Your task to perform on an android device: empty trash in the gmail app Image 0: 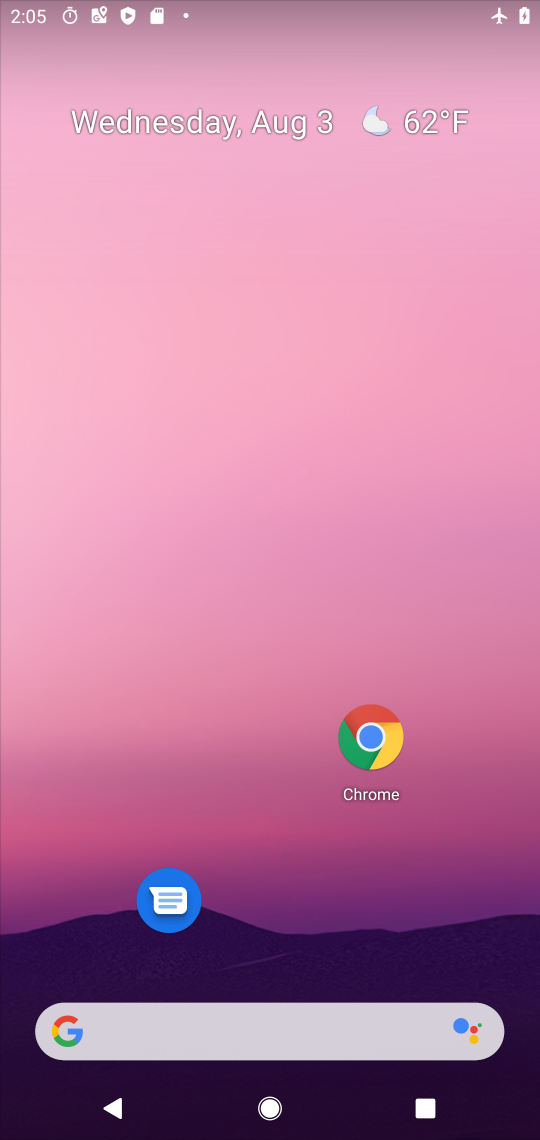
Step 0: drag from (244, 889) to (239, 139)
Your task to perform on an android device: empty trash in the gmail app Image 1: 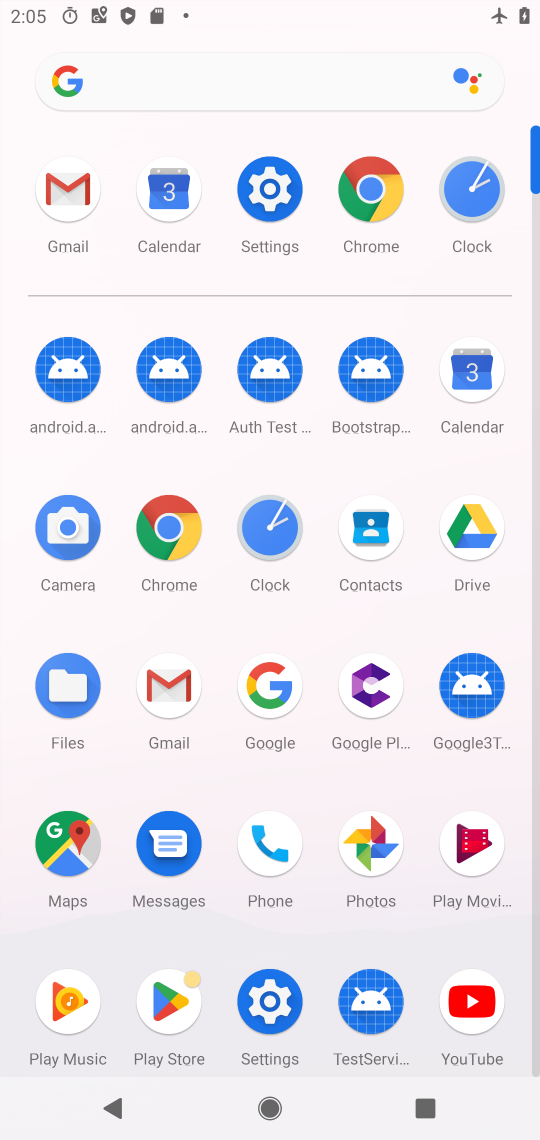
Step 1: click (71, 192)
Your task to perform on an android device: empty trash in the gmail app Image 2: 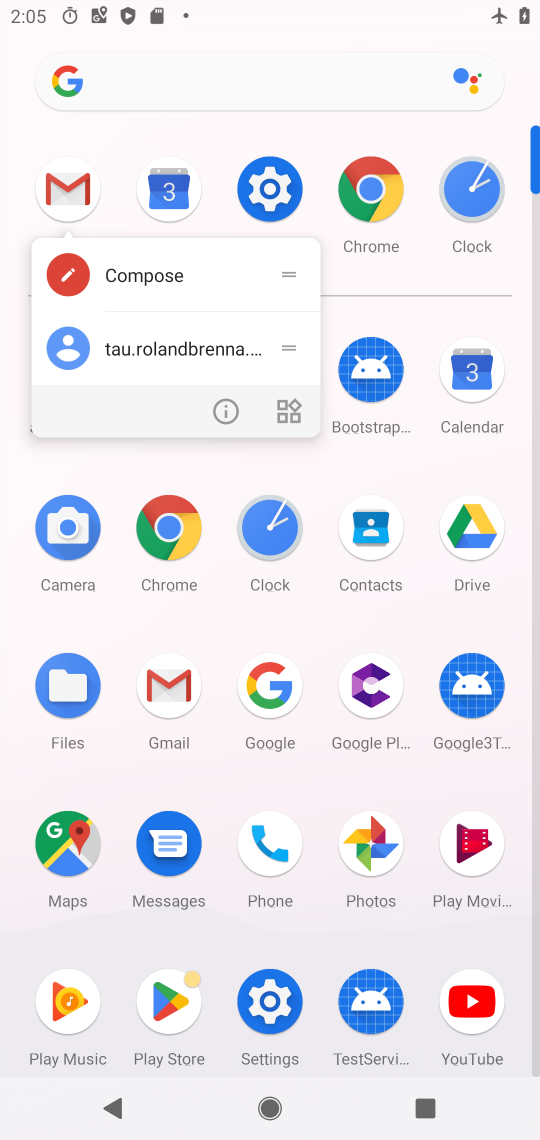
Step 2: click (71, 185)
Your task to perform on an android device: empty trash in the gmail app Image 3: 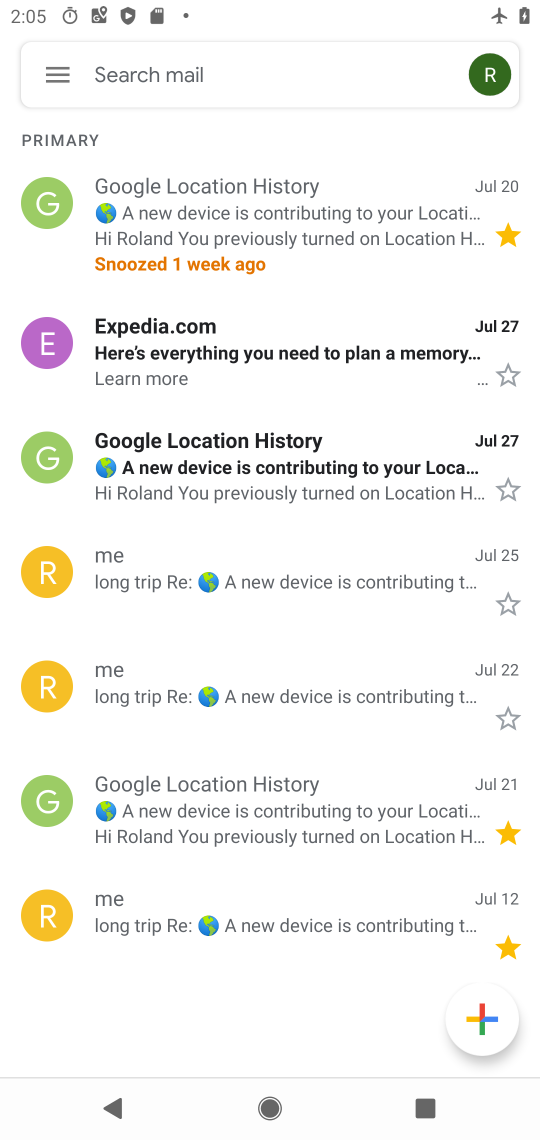
Step 3: click (64, 71)
Your task to perform on an android device: empty trash in the gmail app Image 4: 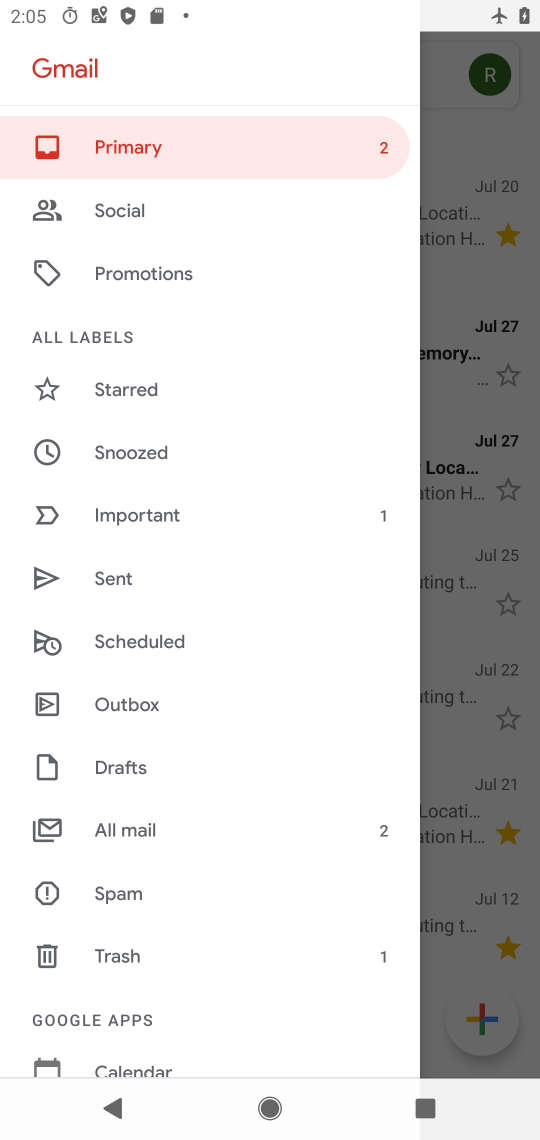
Step 4: click (126, 954)
Your task to perform on an android device: empty trash in the gmail app Image 5: 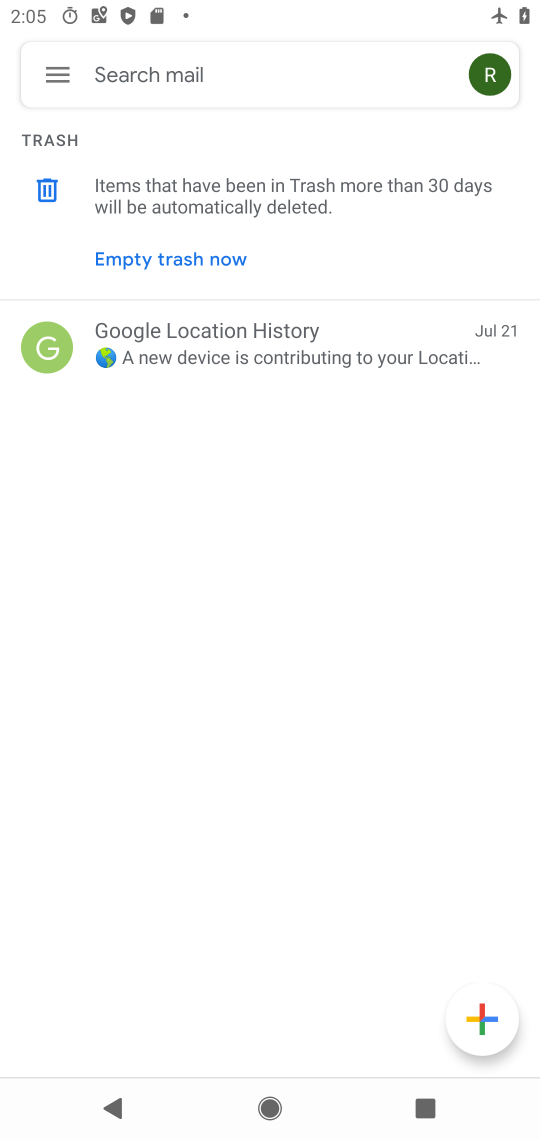
Step 5: click (166, 257)
Your task to perform on an android device: empty trash in the gmail app Image 6: 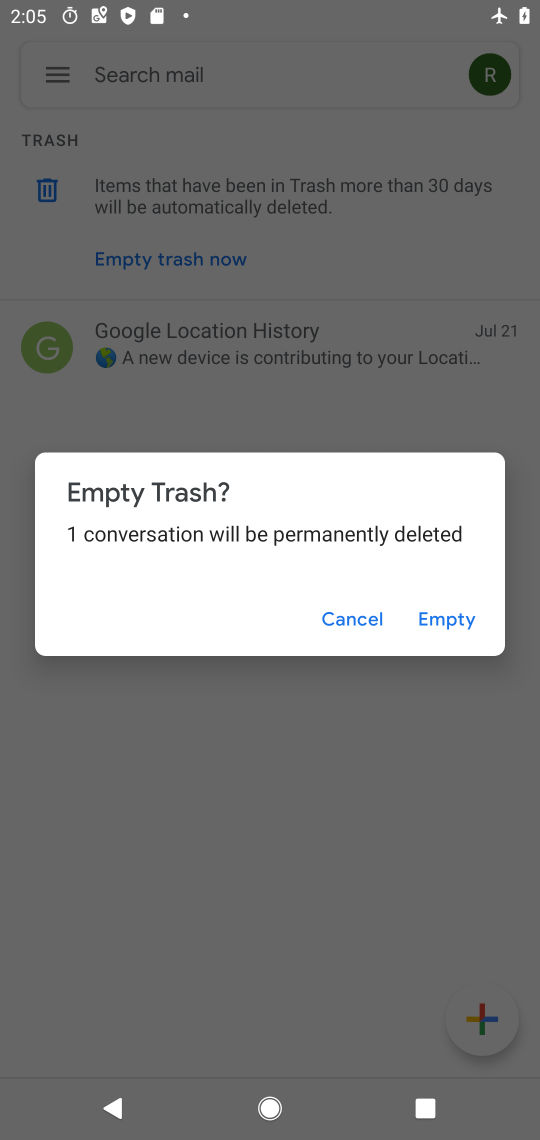
Step 6: click (462, 622)
Your task to perform on an android device: empty trash in the gmail app Image 7: 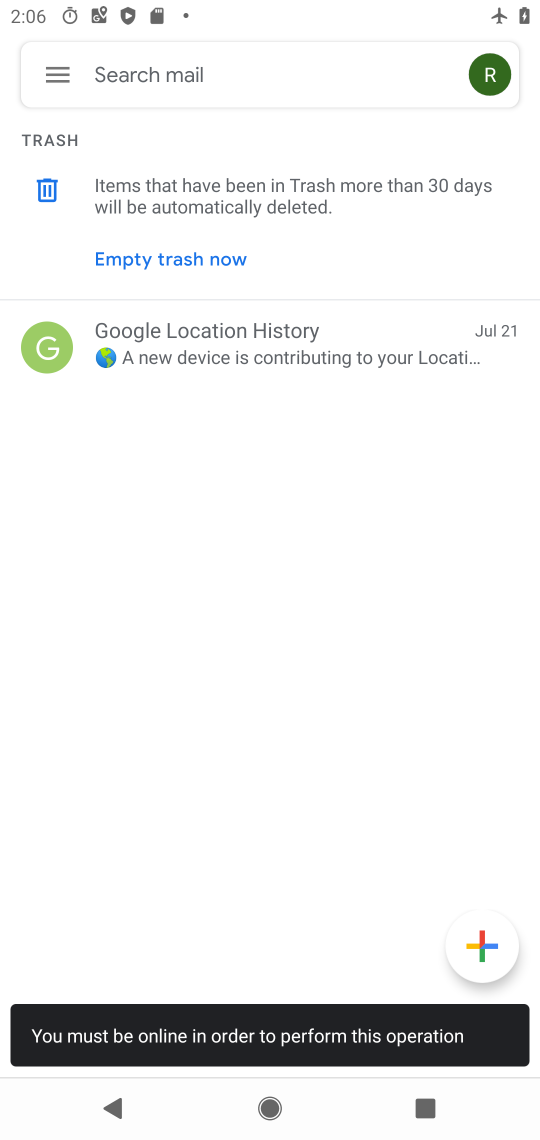
Step 7: click (219, 255)
Your task to perform on an android device: empty trash in the gmail app Image 8: 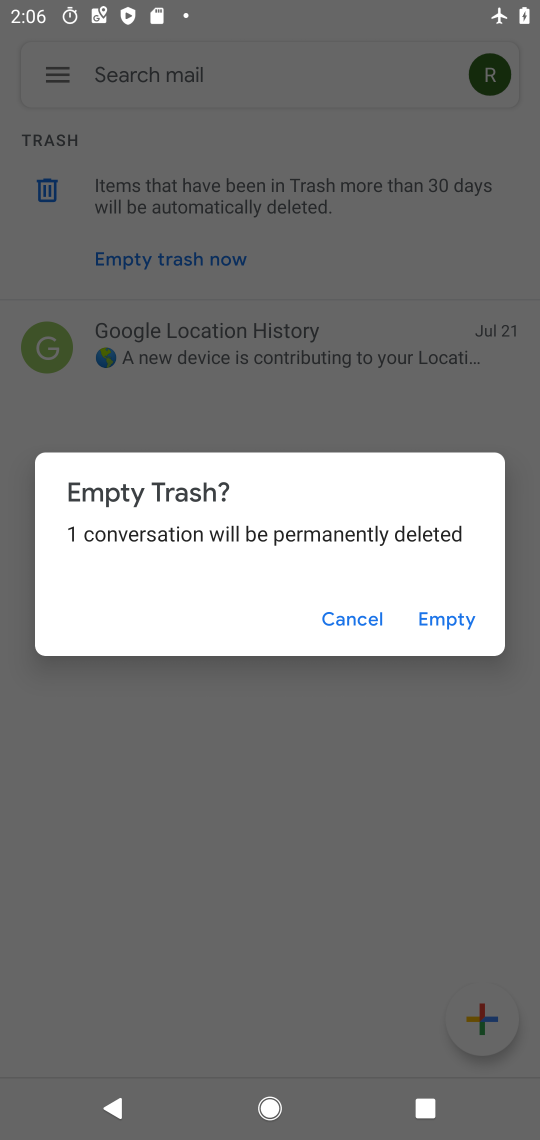
Step 8: click (449, 633)
Your task to perform on an android device: empty trash in the gmail app Image 9: 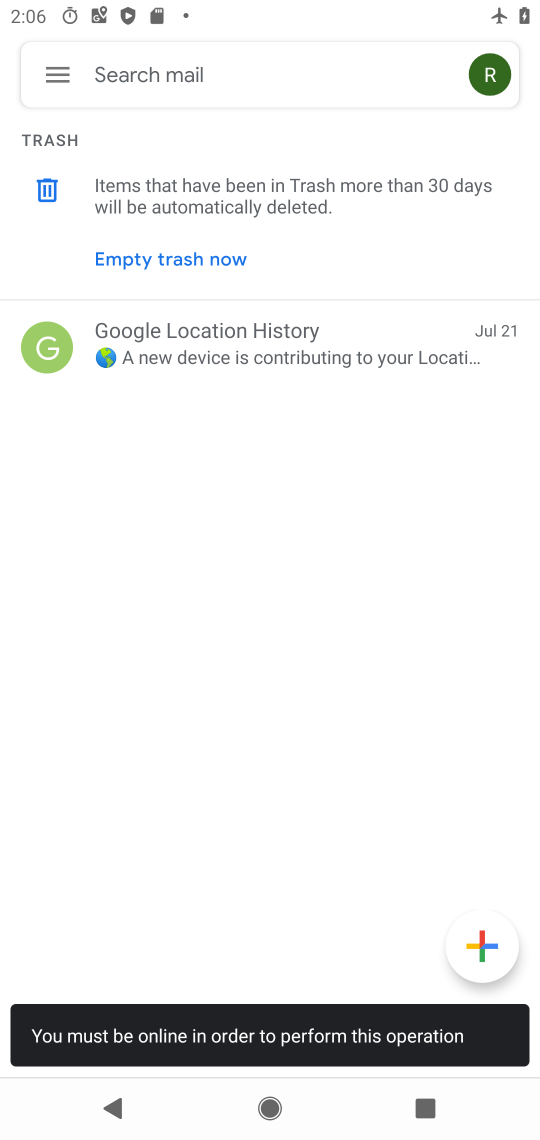
Step 9: task complete